Your task to perform on an android device: Open the web browser Image 0: 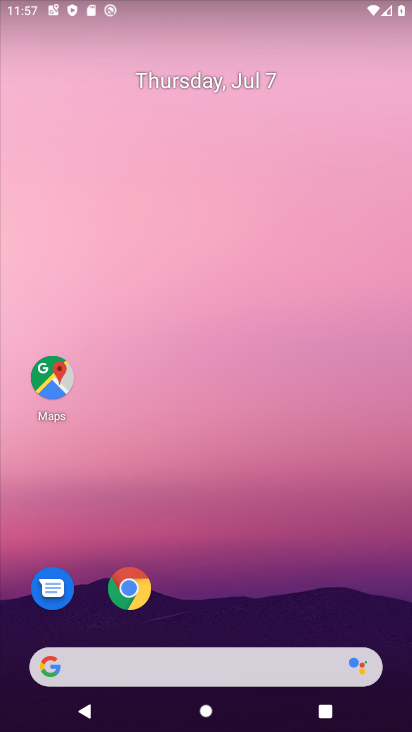
Step 0: drag from (218, 604) to (214, 138)
Your task to perform on an android device: Open the web browser Image 1: 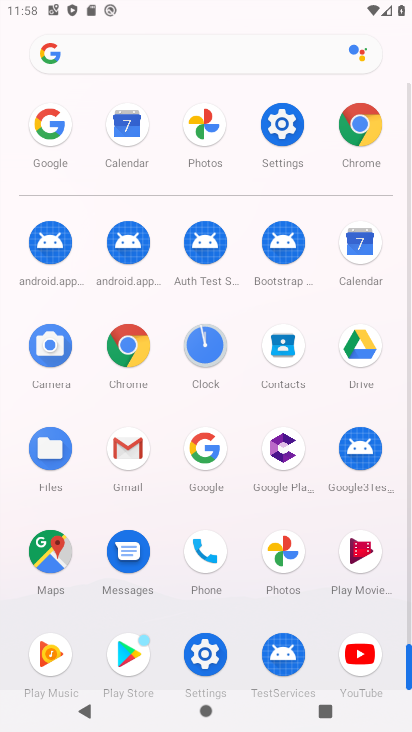
Step 1: click (202, 452)
Your task to perform on an android device: Open the web browser Image 2: 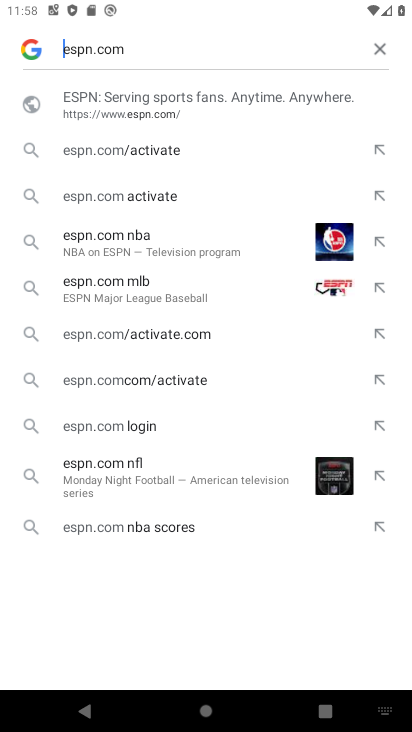
Step 2: click (387, 43)
Your task to perform on an android device: Open the web browser Image 3: 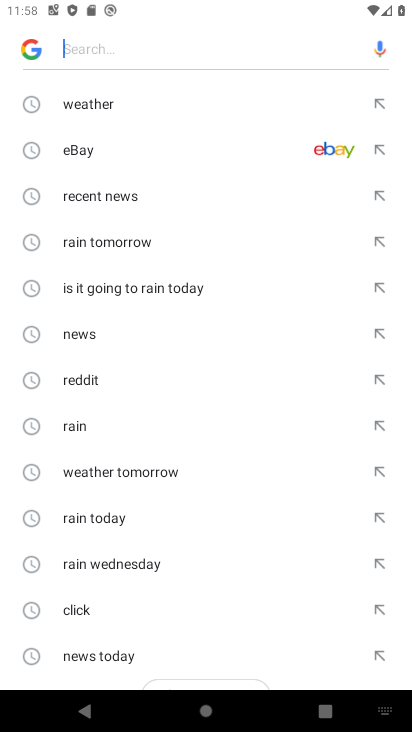
Step 3: task complete